Your task to perform on an android device: Go to eBay Image 0: 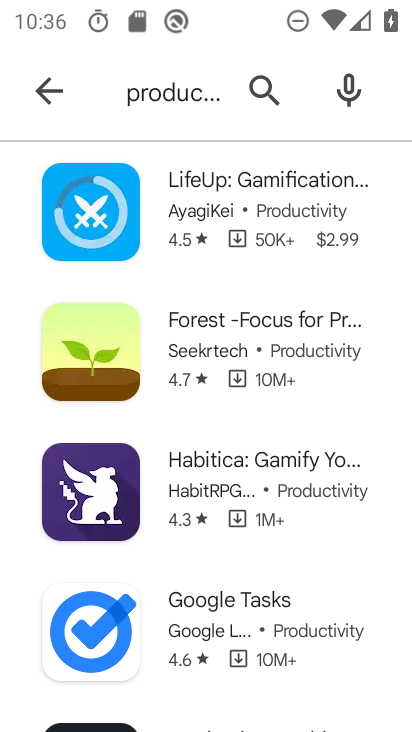
Step 0: press home button
Your task to perform on an android device: Go to eBay Image 1: 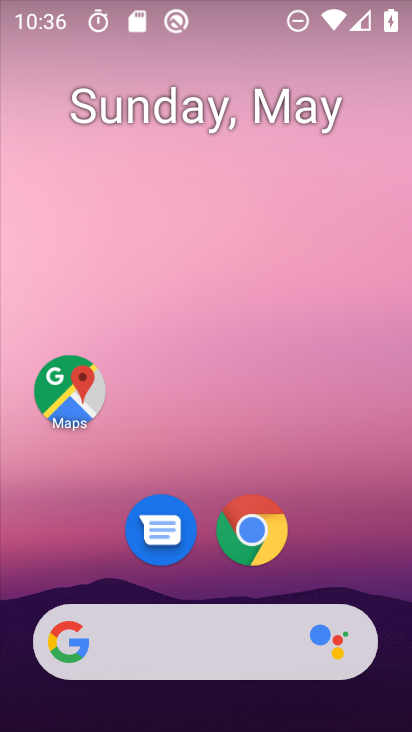
Step 1: drag from (214, 701) to (279, 80)
Your task to perform on an android device: Go to eBay Image 2: 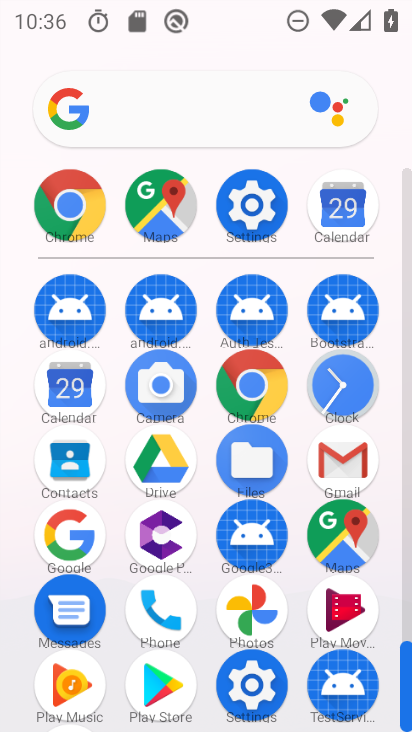
Step 2: click (83, 213)
Your task to perform on an android device: Go to eBay Image 3: 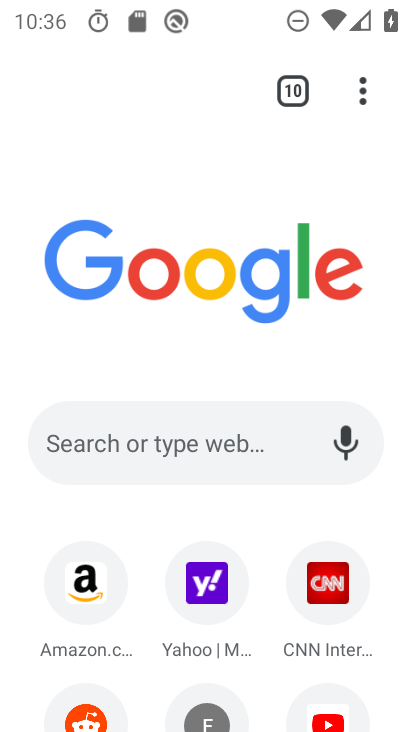
Step 3: click (145, 453)
Your task to perform on an android device: Go to eBay Image 4: 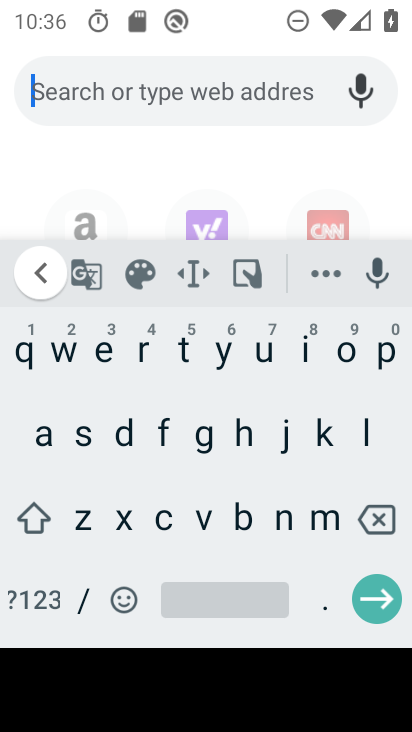
Step 4: click (102, 348)
Your task to perform on an android device: Go to eBay Image 5: 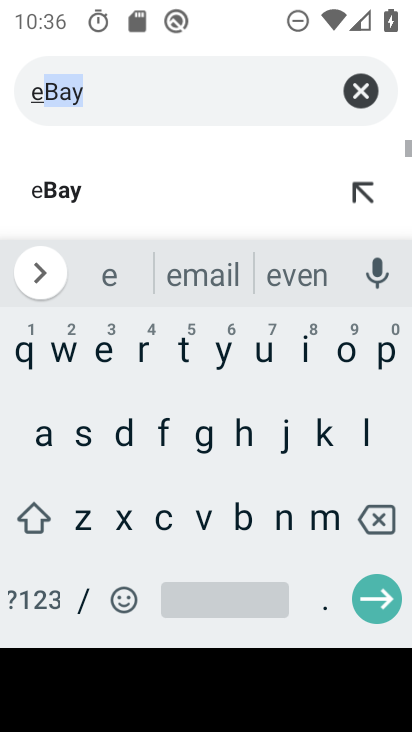
Step 5: click (237, 517)
Your task to perform on an android device: Go to eBay Image 6: 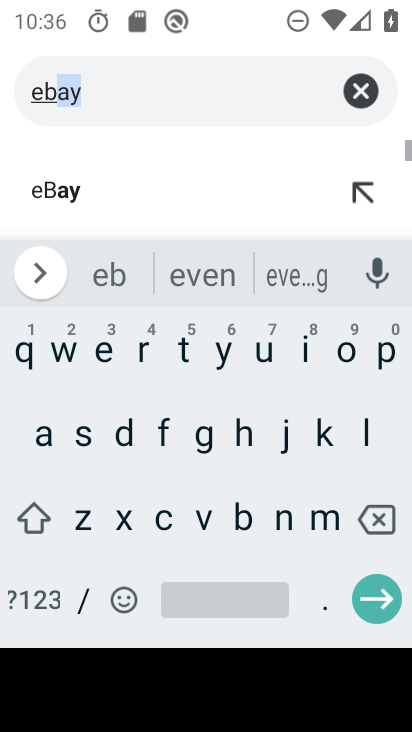
Step 6: click (37, 427)
Your task to perform on an android device: Go to eBay Image 7: 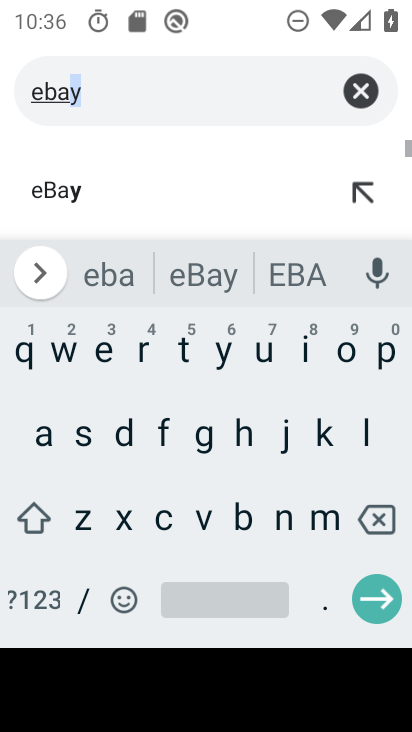
Step 7: click (137, 88)
Your task to perform on an android device: Go to eBay Image 8: 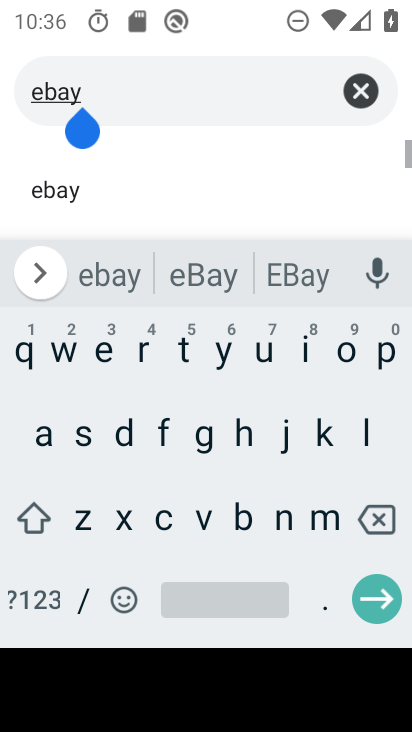
Step 8: click (396, 595)
Your task to perform on an android device: Go to eBay Image 9: 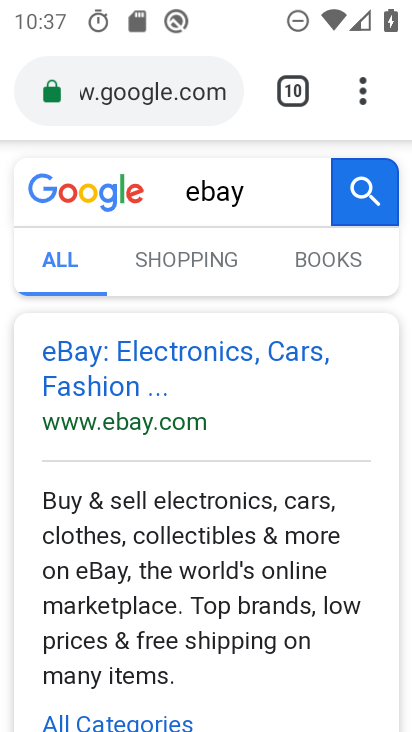
Step 9: click (220, 364)
Your task to perform on an android device: Go to eBay Image 10: 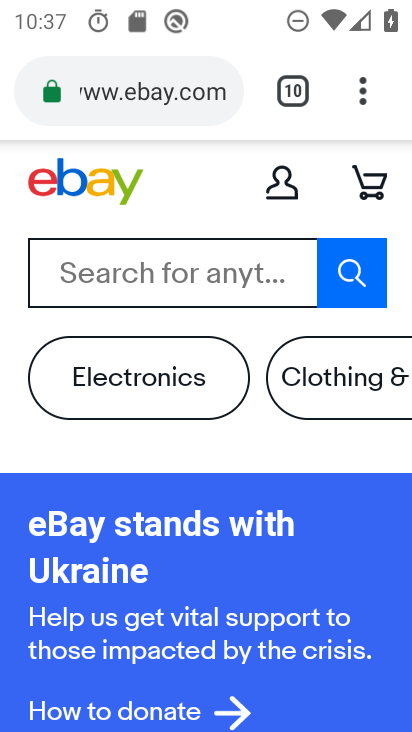
Step 10: task complete